Your task to perform on an android device: Check the weather Image 0: 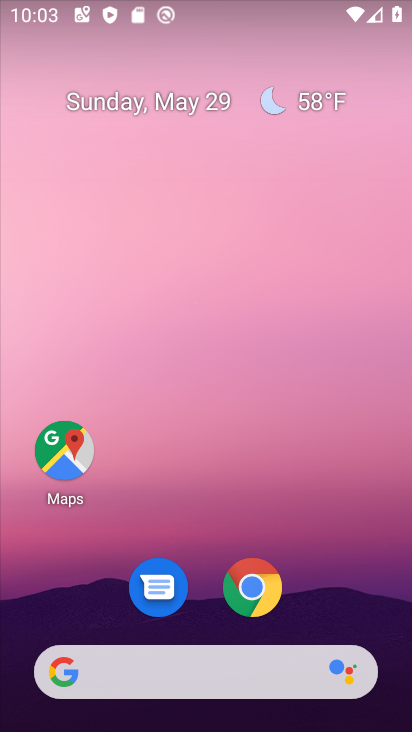
Step 0: drag from (331, 573) to (265, 146)
Your task to perform on an android device: Check the weather Image 1: 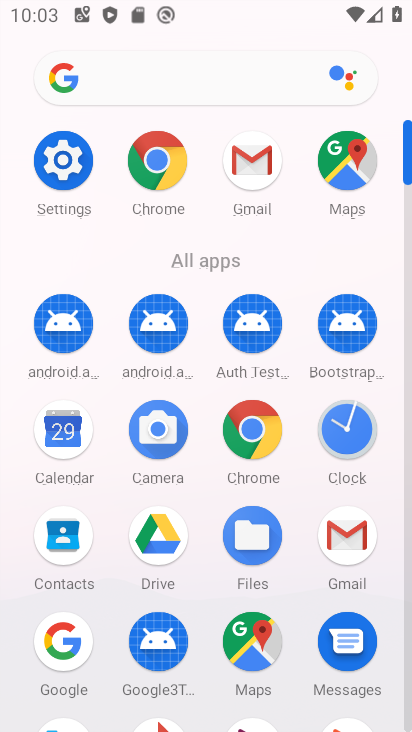
Step 1: click (172, 152)
Your task to perform on an android device: Check the weather Image 2: 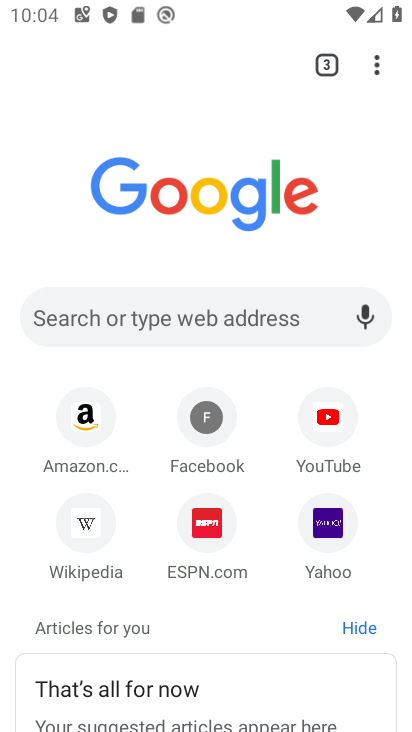
Step 2: click (145, 315)
Your task to perform on an android device: Check the weather Image 3: 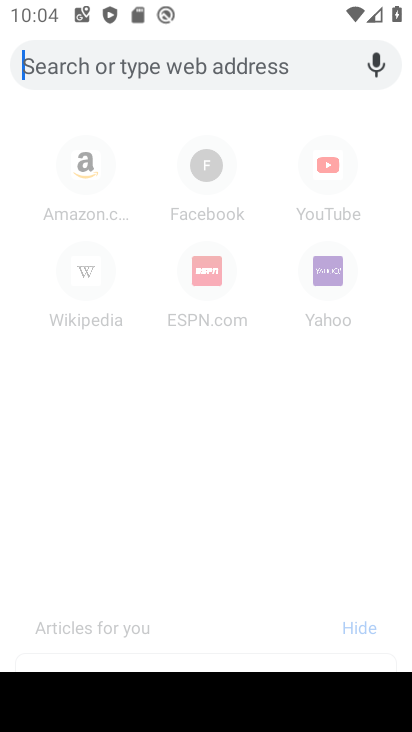
Step 3: type "Check the weather"
Your task to perform on an android device: Check the weather Image 4: 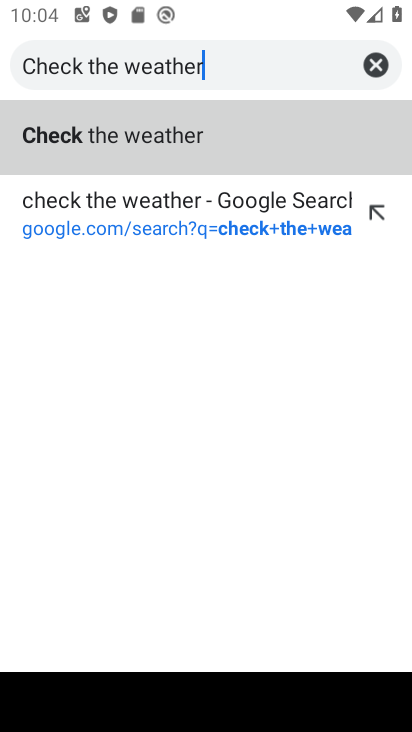
Step 4: click (167, 143)
Your task to perform on an android device: Check the weather Image 5: 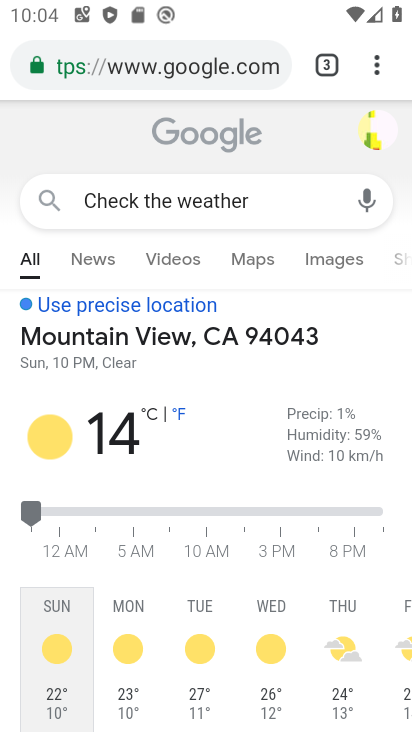
Step 5: task complete